Your task to perform on an android device: Go to sound settings Image 0: 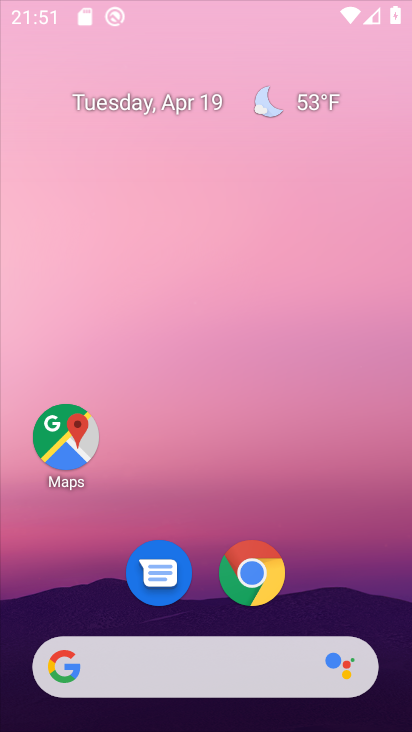
Step 0: drag from (212, 600) to (224, 76)
Your task to perform on an android device: Go to sound settings Image 1: 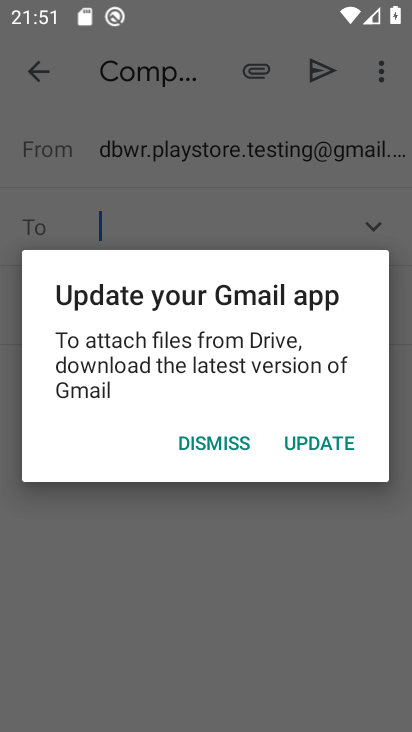
Step 1: press home button
Your task to perform on an android device: Go to sound settings Image 2: 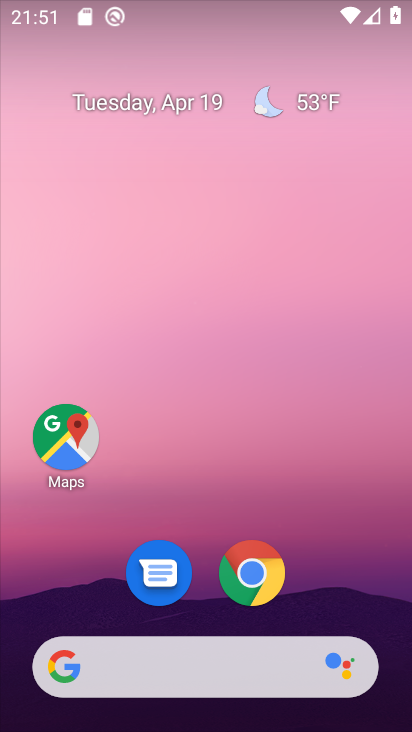
Step 2: drag from (202, 554) to (222, 54)
Your task to perform on an android device: Go to sound settings Image 3: 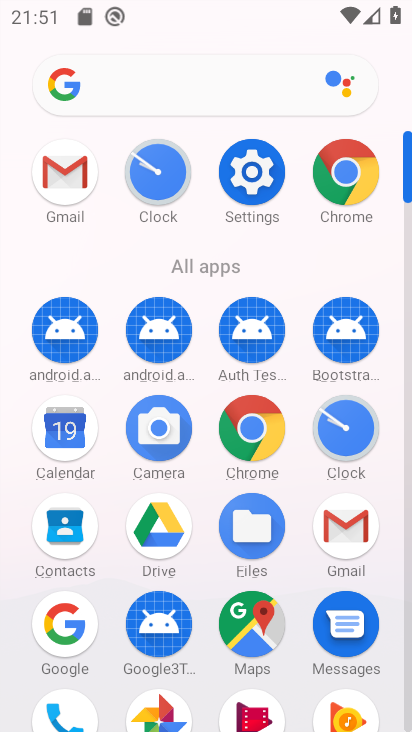
Step 3: click (248, 158)
Your task to perform on an android device: Go to sound settings Image 4: 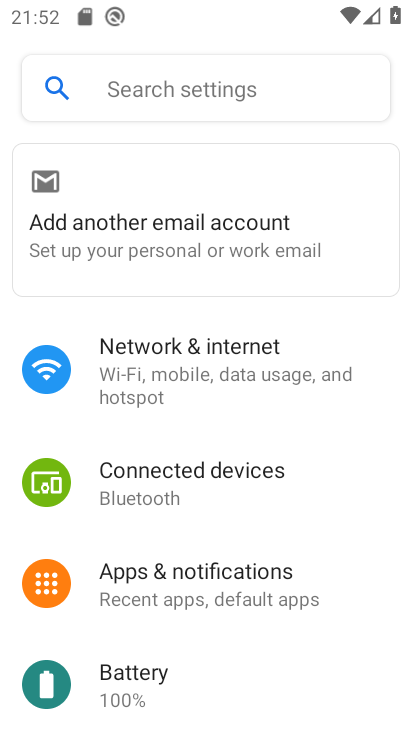
Step 4: drag from (190, 650) to (238, 106)
Your task to perform on an android device: Go to sound settings Image 5: 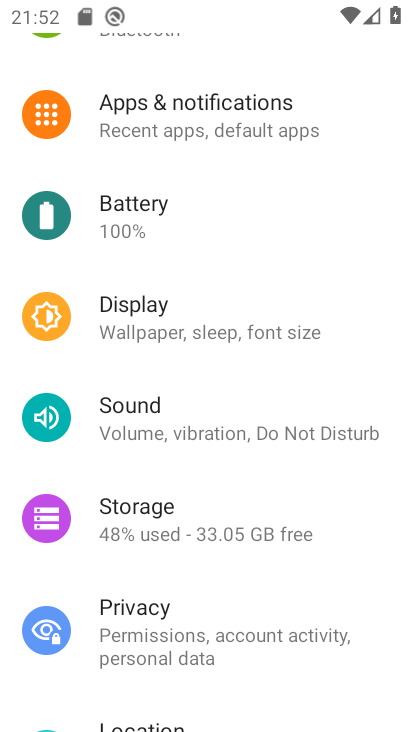
Step 5: click (177, 406)
Your task to perform on an android device: Go to sound settings Image 6: 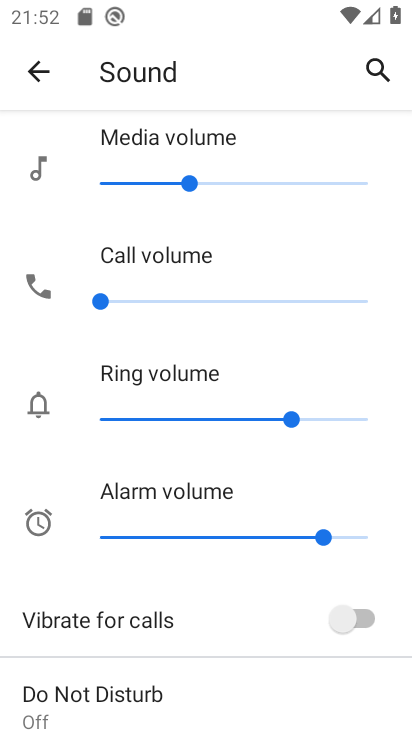
Step 6: drag from (208, 669) to (250, 135)
Your task to perform on an android device: Go to sound settings Image 7: 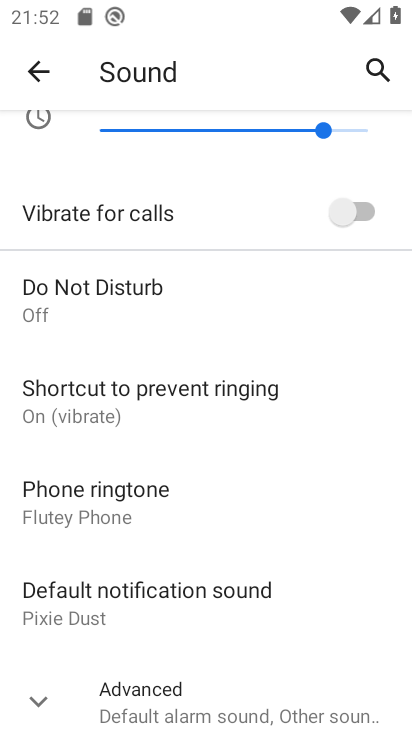
Step 7: click (36, 692)
Your task to perform on an android device: Go to sound settings Image 8: 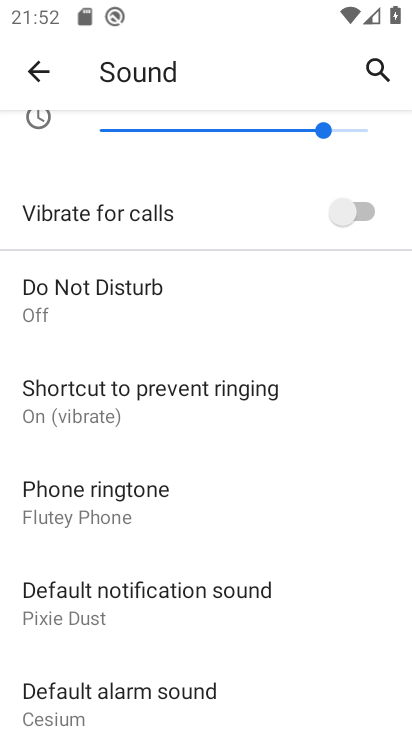
Step 8: task complete